Your task to perform on an android device: Empty the shopping cart on bestbuy.com. Add logitech g pro to the cart on bestbuy.com, then select checkout. Image 0: 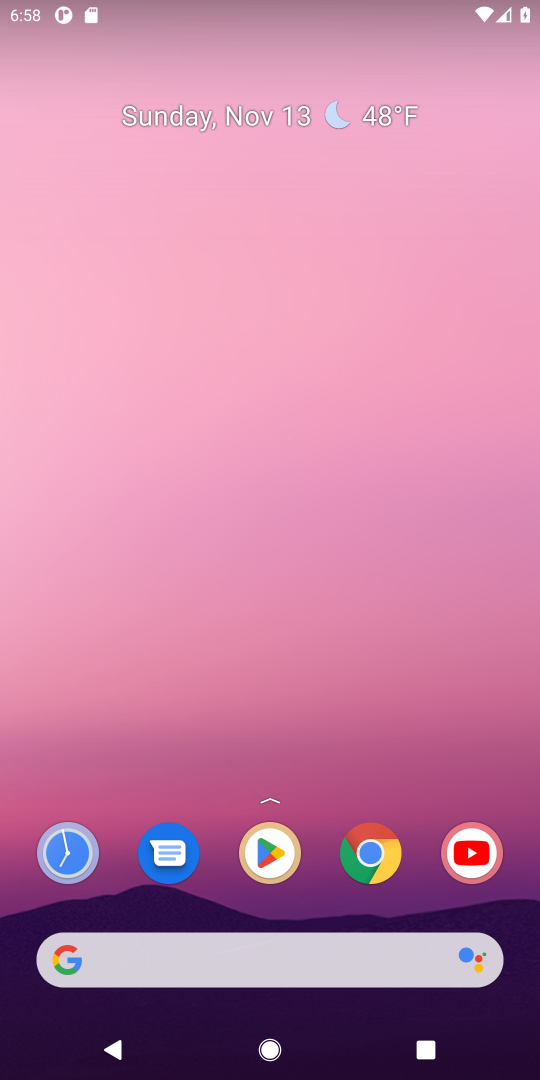
Step 0: press home button
Your task to perform on an android device: Empty the shopping cart on bestbuy.com. Add logitech g pro to the cart on bestbuy.com, then select checkout. Image 1: 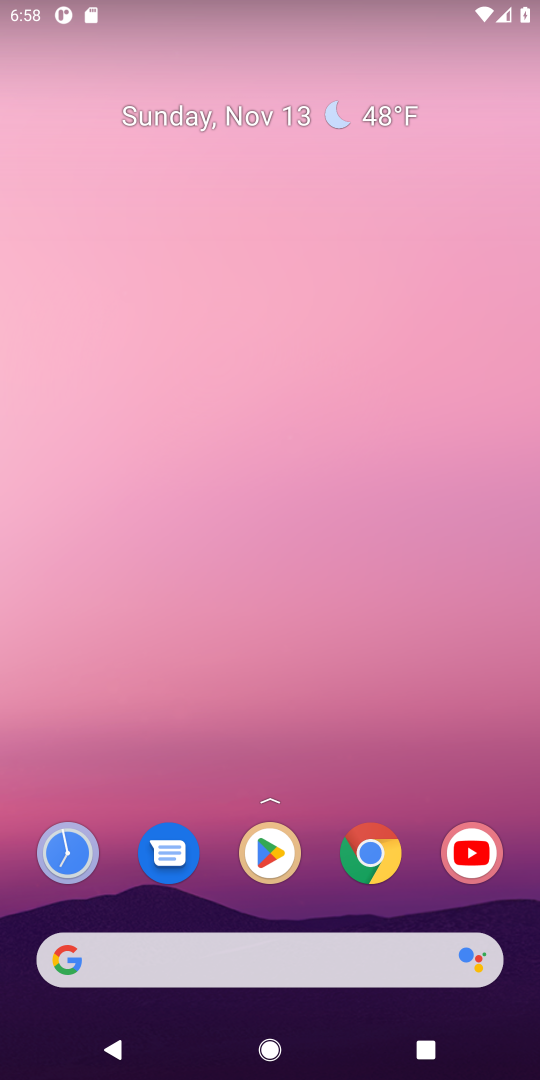
Step 1: click (100, 961)
Your task to perform on an android device: Empty the shopping cart on bestbuy.com. Add logitech g pro to the cart on bestbuy.com, then select checkout. Image 2: 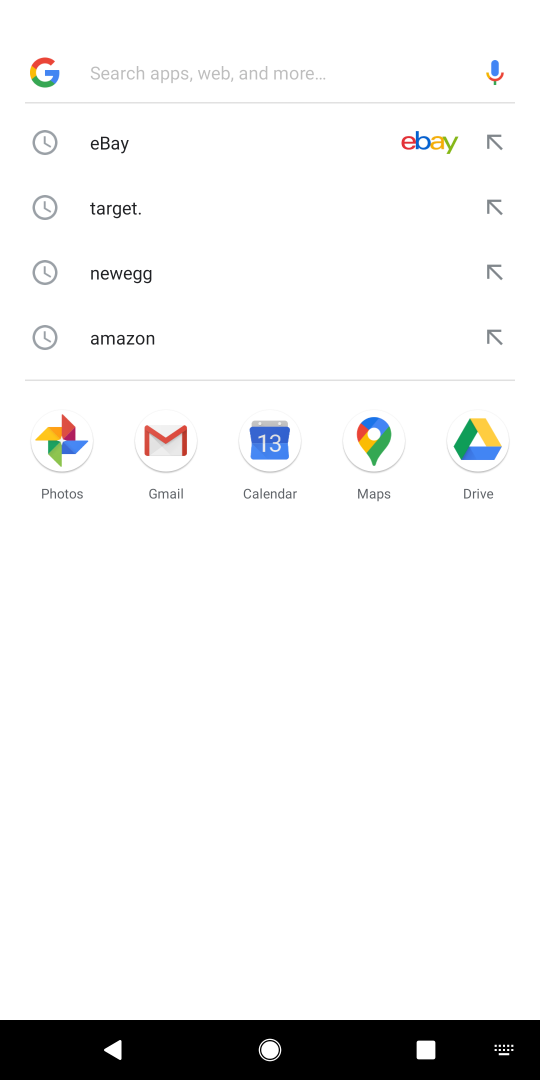
Step 2: type "bestbuy.com"
Your task to perform on an android device: Empty the shopping cart on bestbuy.com. Add logitech g pro to the cart on bestbuy.com, then select checkout. Image 3: 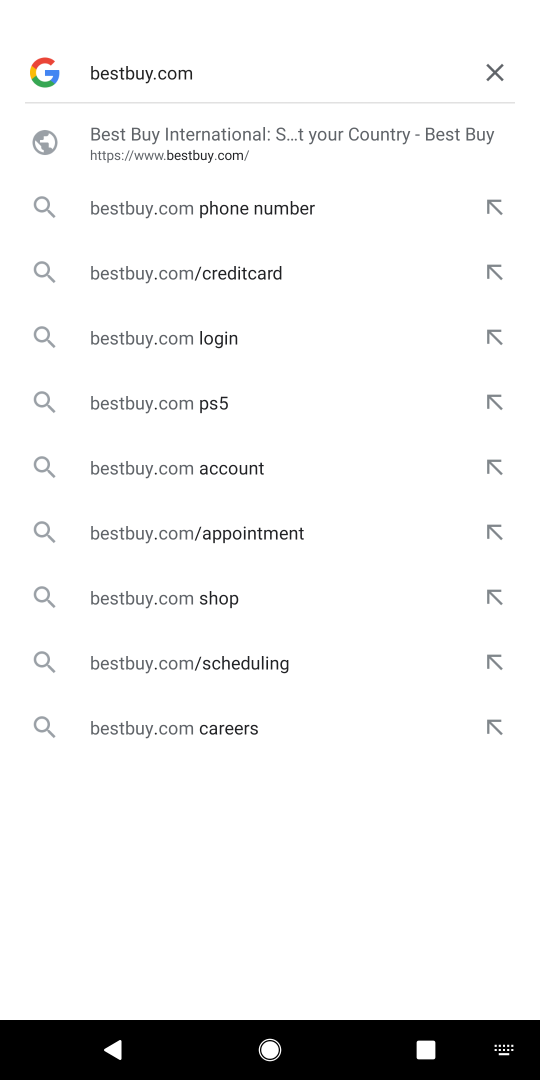
Step 3: press enter
Your task to perform on an android device: Empty the shopping cart on bestbuy.com. Add logitech g pro to the cart on bestbuy.com, then select checkout. Image 4: 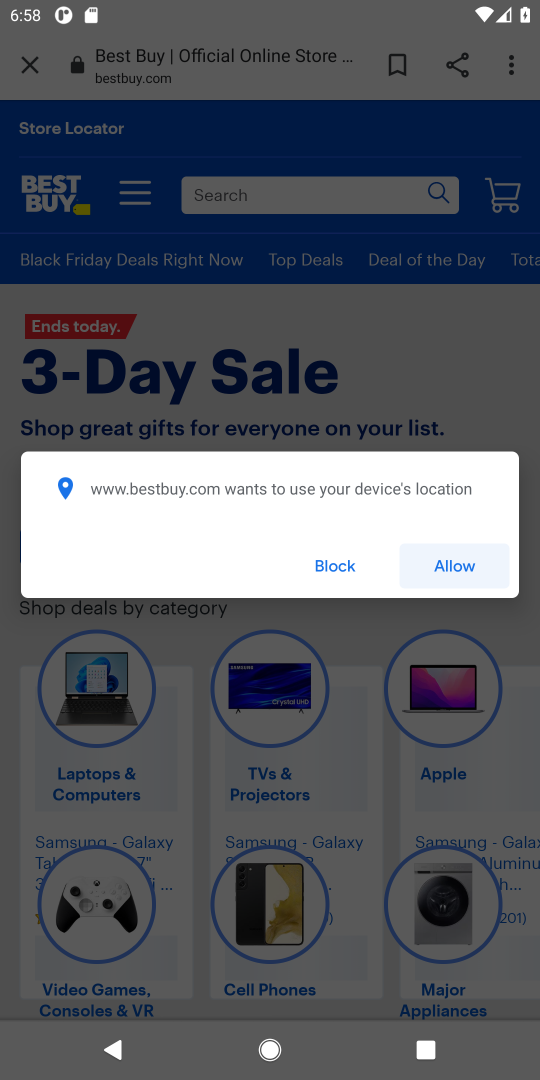
Step 4: click (505, 199)
Your task to perform on an android device: Empty the shopping cart on bestbuy.com. Add logitech g pro to the cart on bestbuy.com, then select checkout. Image 5: 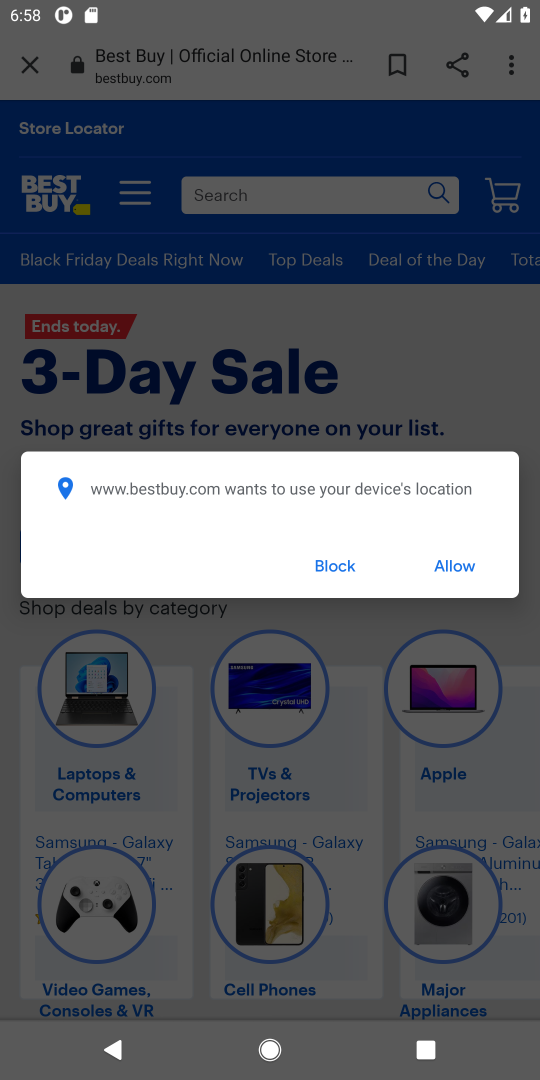
Step 5: click (332, 572)
Your task to perform on an android device: Empty the shopping cart on bestbuy.com. Add logitech g pro to the cart on bestbuy.com, then select checkout. Image 6: 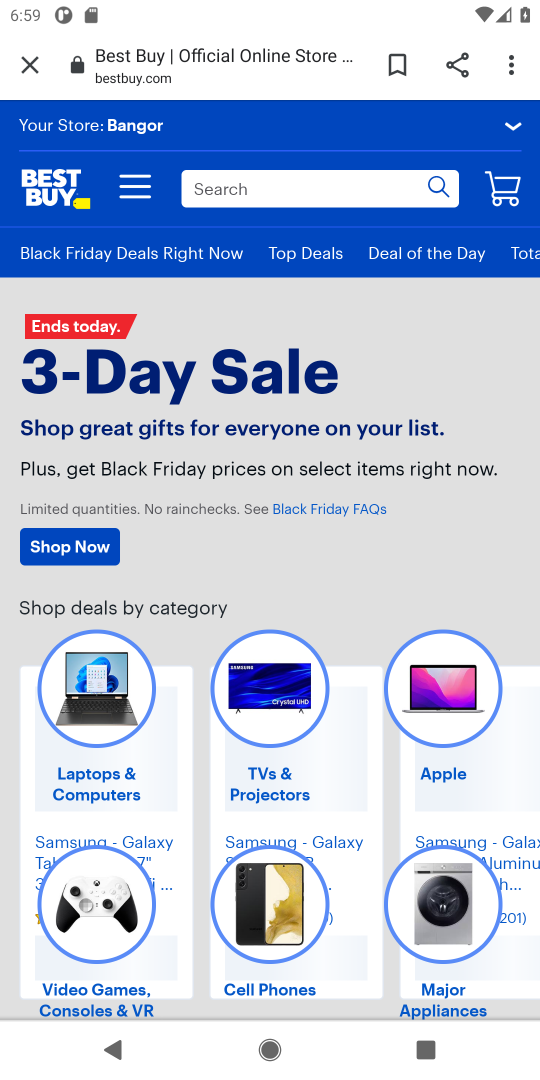
Step 6: click (502, 191)
Your task to perform on an android device: Empty the shopping cart on bestbuy.com. Add logitech g pro to the cart on bestbuy.com, then select checkout. Image 7: 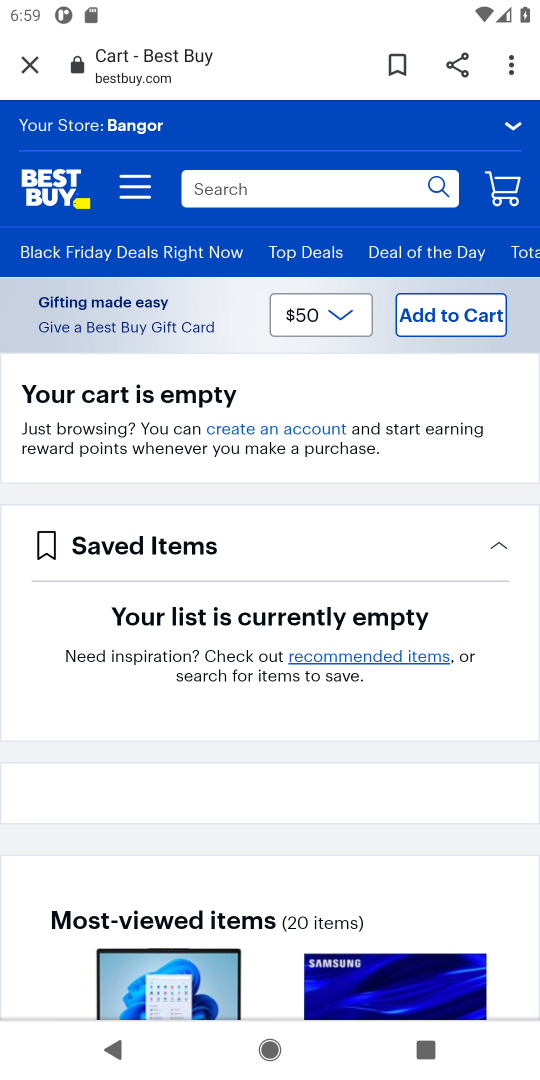
Step 7: click (204, 179)
Your task to perform on an android device: Empty the shopping cart on bestbuy.com. Add logitech g pro to the cart on bestbuy.com, then select checkout. Image 8: 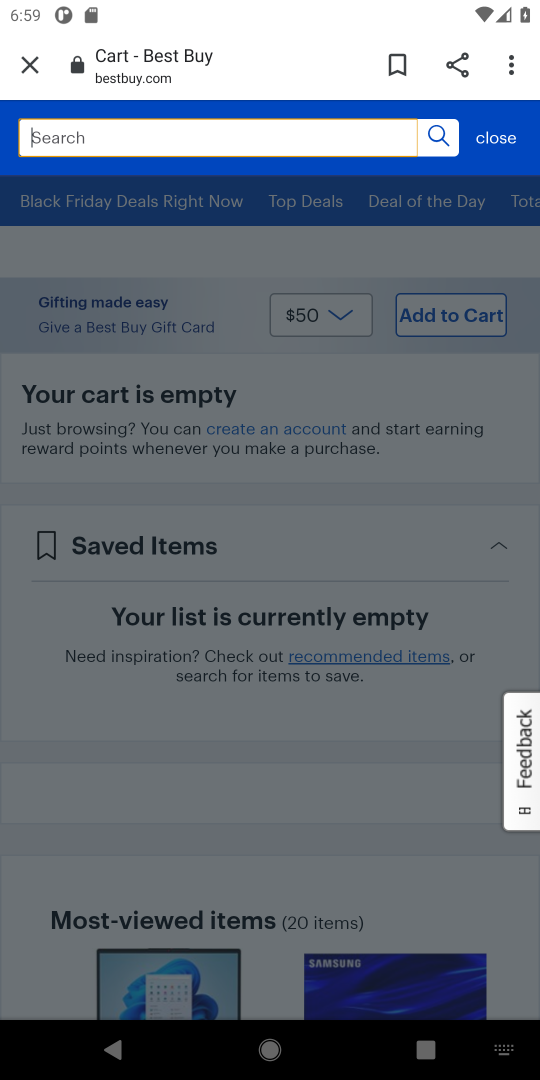
Step 8: press enter
Your task to perform on an android device: Empty the shopping cart on bestbuy.com. Add logitech g pro to the cart on bestbuy.com, then select checkout. Image 9: 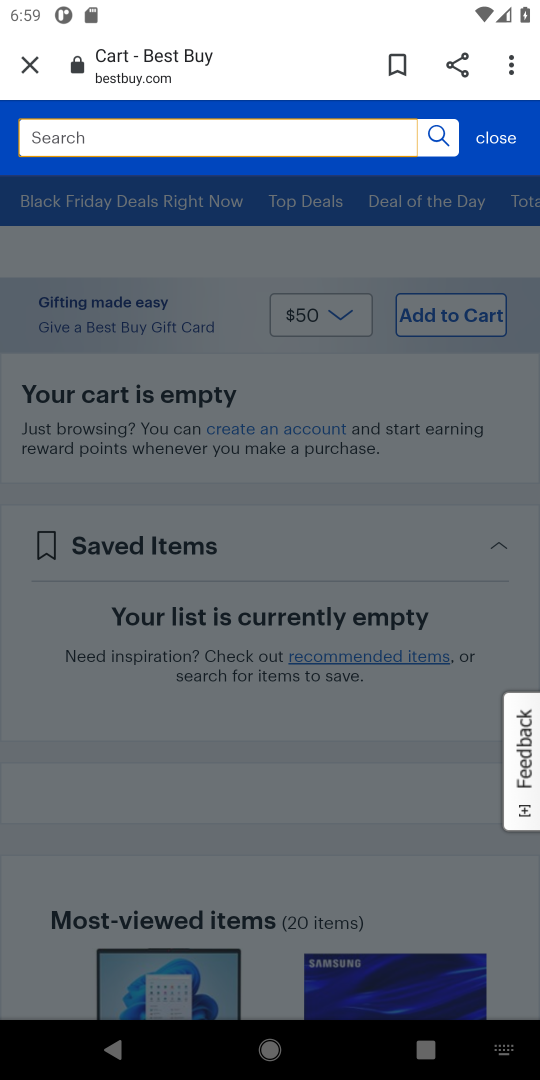
Step 9: type " logitech g pro"
Your task to perform on an android device: Empty the shopping cart on bestbuy.com. Add logitech g pro to the cart on bestbuy.com, then select checkout. Image 10: 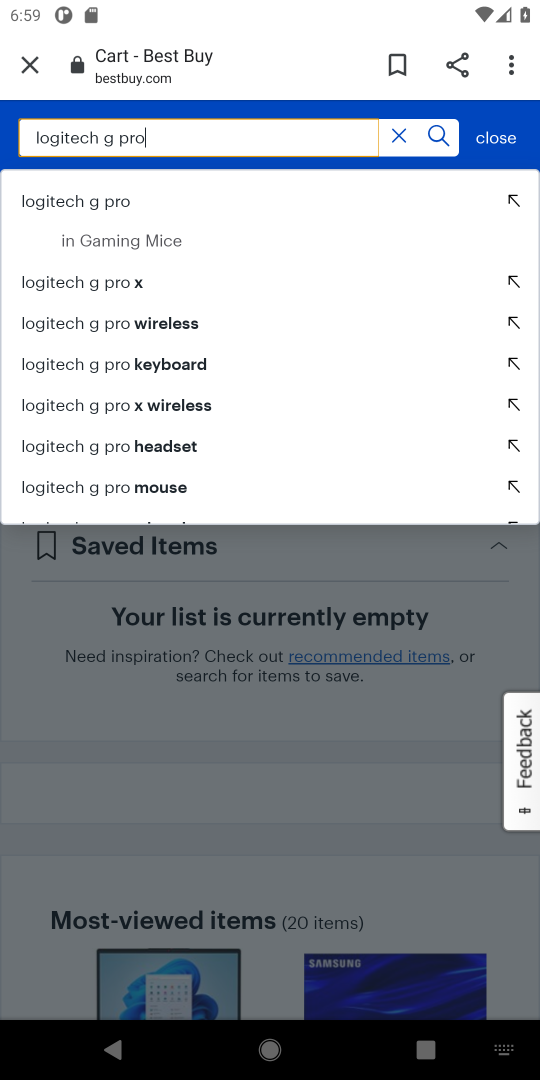
Step 10: press enter
Your task to perform on an android device: Empty the shopping cart on bestbuy.com. Add logitech g pro to the cart on bestbuy.com, then select checkout. Image 11: 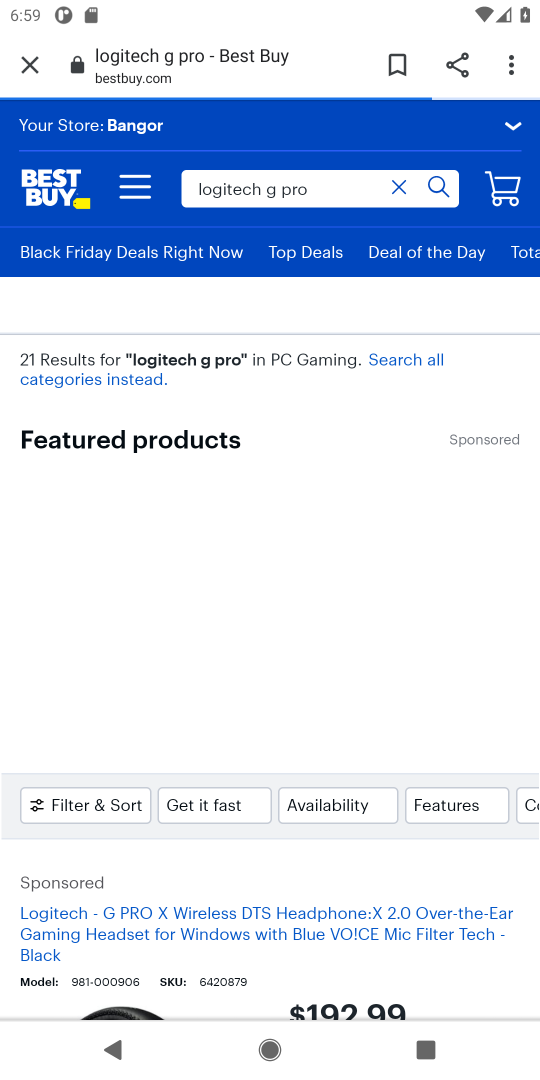
Step 11: drag from (307, 890) to (311, 402)
Your task to perform on an android device: Empty the shopping cart on bestbuy.com. Add logitech g pro to the cart on bestbuy.com, then select checkout. Image 12: 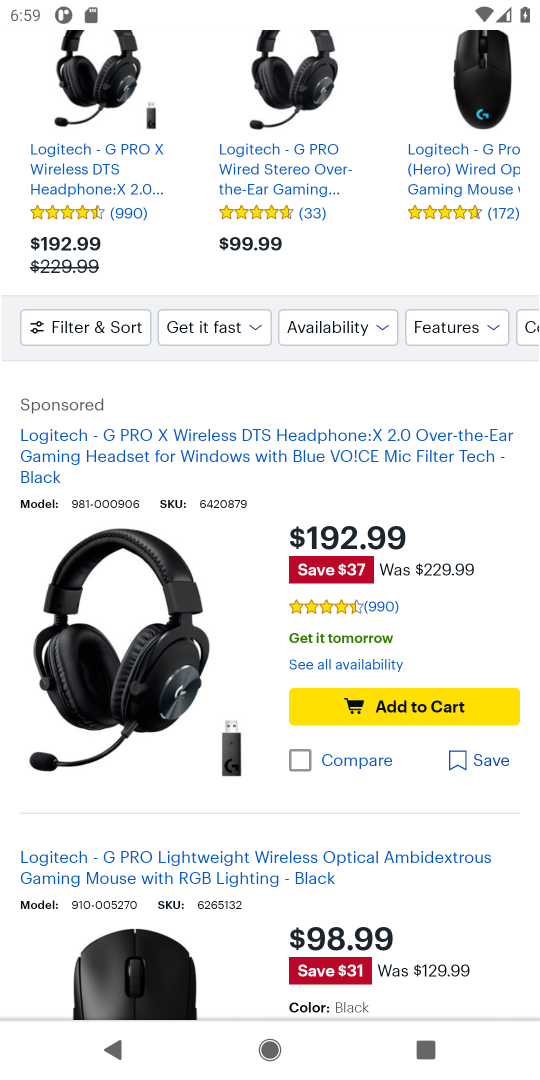
Step 12: drag from (232, 888) to (288, 510)
Your task to perform on an android device: Empty the shopping cart on bestbuy.com. Add logitech g pro to the cart on bestbuy.com, then select checkout. Image 13: 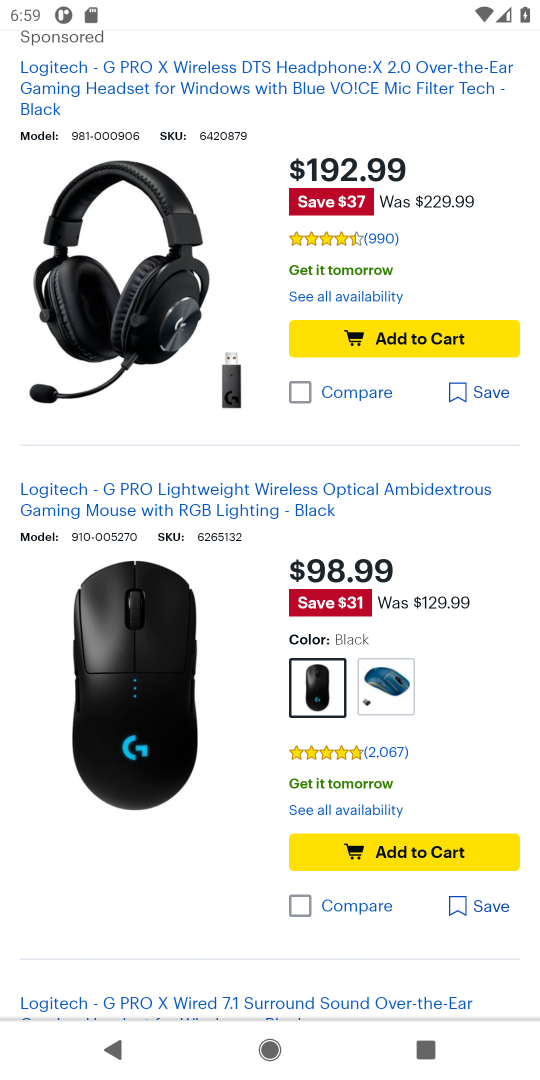
Step 13: click (419, 853)
Your task to perform on an android device: Empty the shopping cart on bestbuy.com. Add logitech g pro to the cart on bestbuy.com, then select checkout. Image 14: 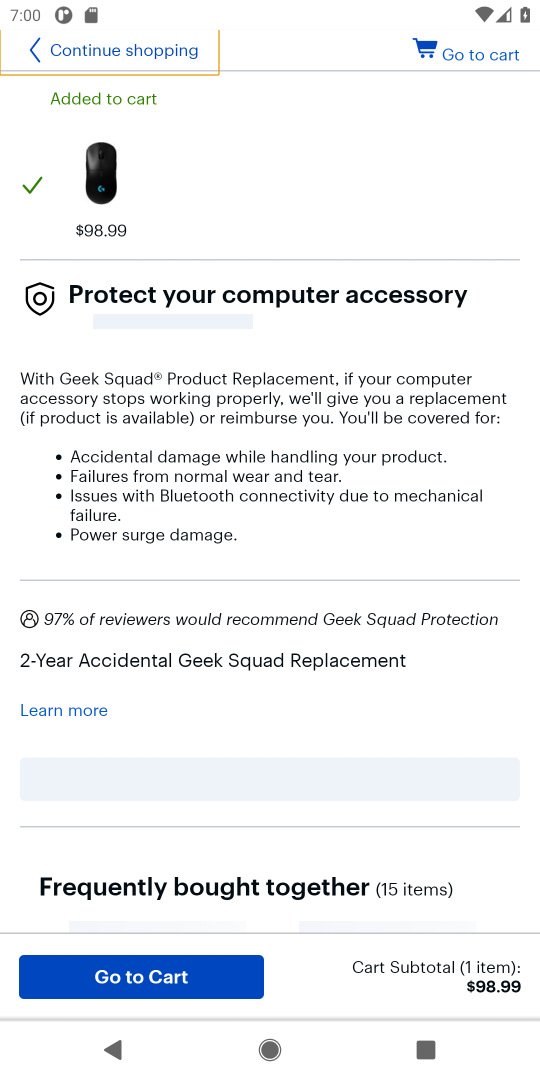
Step 14: click (135, 976)
Your task to perform on an android device: Empty the shopping cart on bestbuy.com. Add logitech g pro to the cart on bestbuy.com, then select checkout. Image 15: 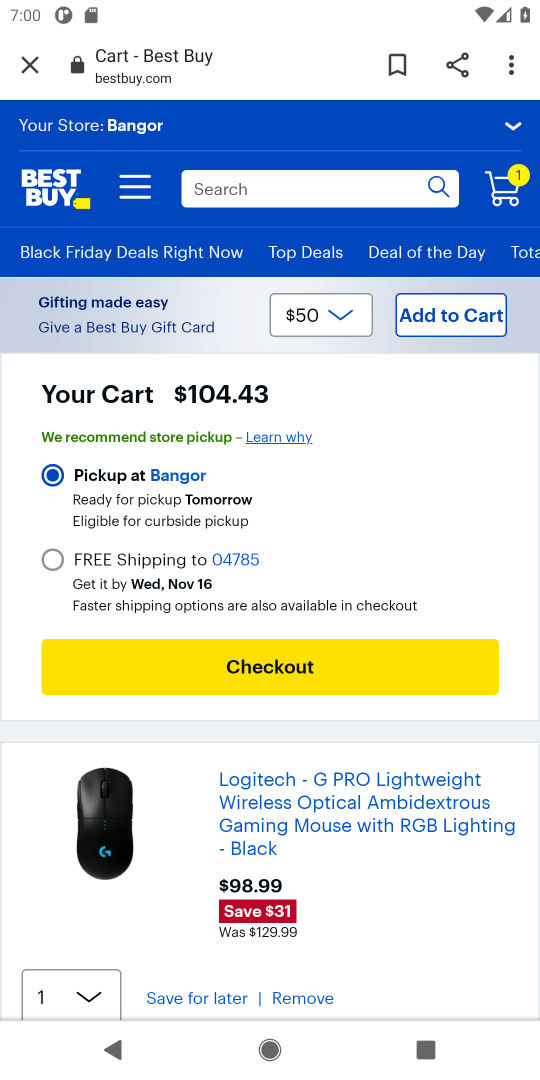
Step 15: click (259, 671)
Your task to perform on an android device: Empty the shopping cart on bestbuy.com. Add logitech g pro to the cart on bestbuy.com, then select checkout. Image 16: 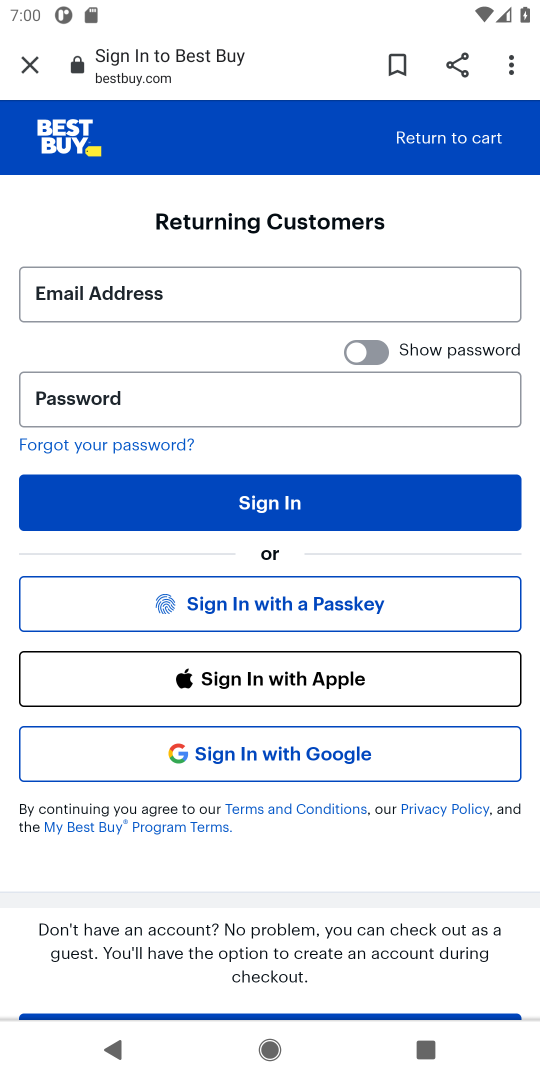
Step 16: task complete